Your task to perform on an android device: toggle priority inbox in the gmail app Image 0: 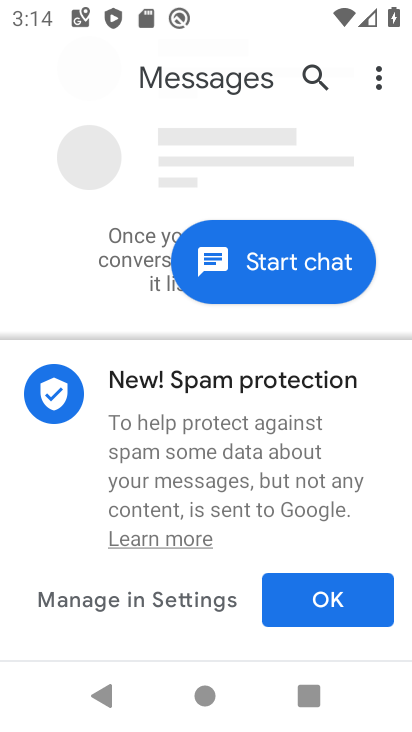
Step 0: press back button
Your task to perform on an android device: toggle priority inbox in the gmail app Image 1: 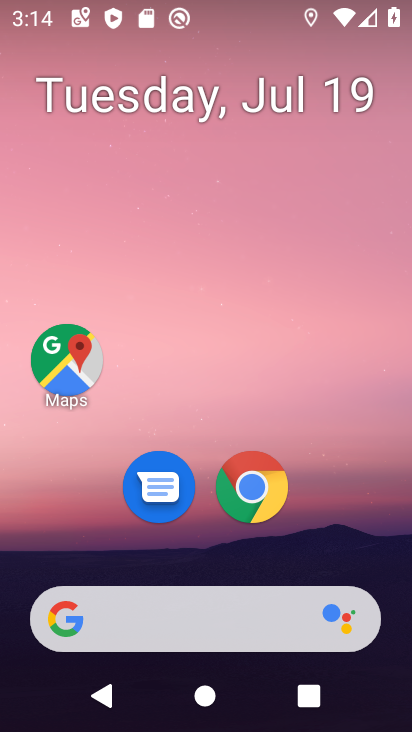
Step 1: drag from (240, 467) to (307, 6)
Your task to perform on an android device: toggle priority inbox in the gmail app Image 2: 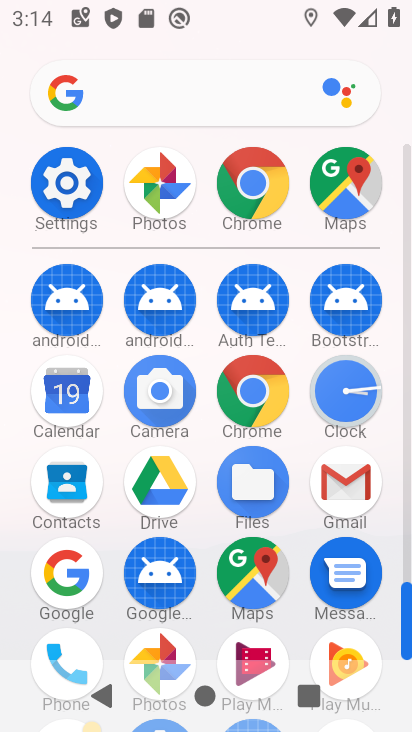
Step 2: click (361, 488)
Your task to perform on an android device: toggle priority inbox in the gmail app Image 3: 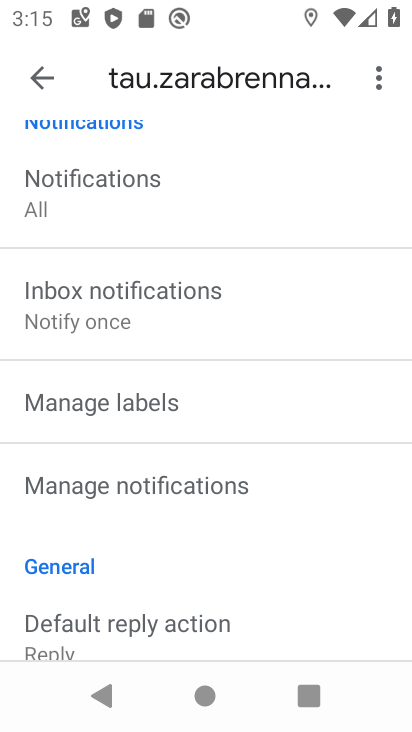
Step 3: drag from (130, 214) to (114, 668)
Your task to perform on an android device: toggle priority inbox in the gmail app Image 4: 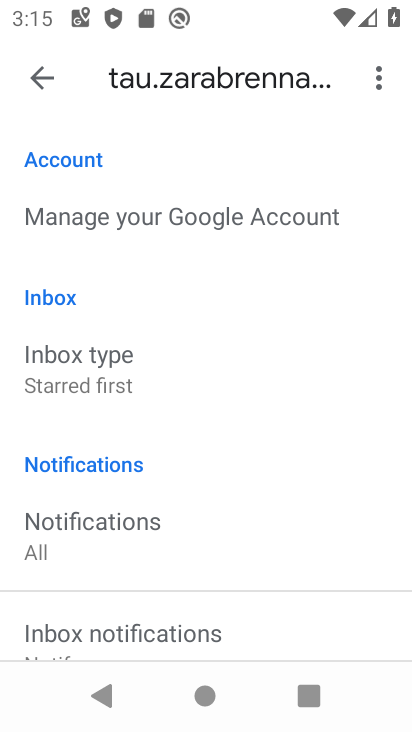
Step 4: click (93, 375)
Your task to perform on an android device: toggle priority inbox in the gmail app Image 5: 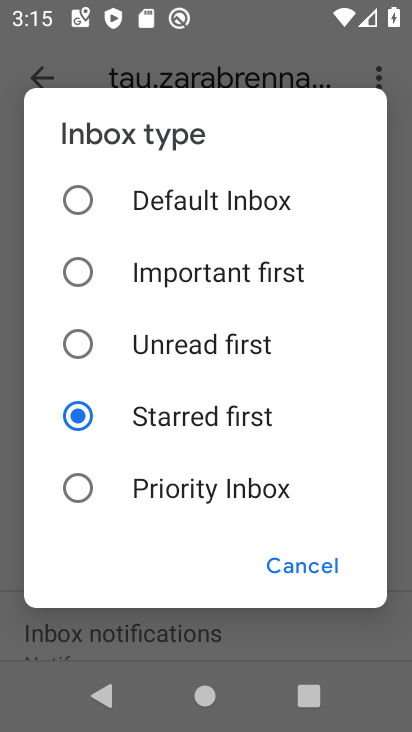
Step 5: click (76, 490)
Your task to perform on an android device: toggle priority inbox in the gmail app Image 6: 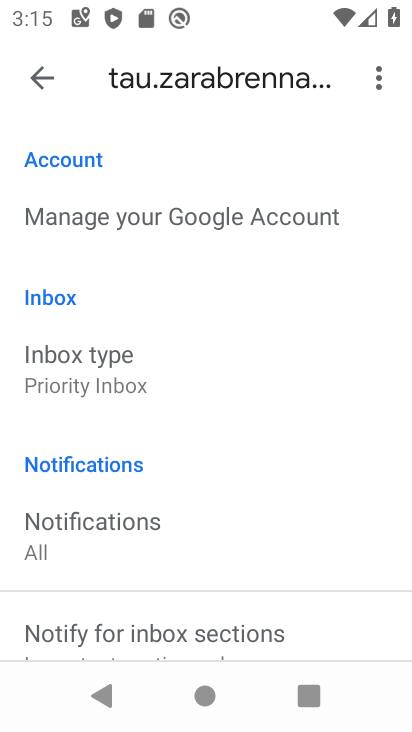
Step 6: task complete